Your task to perform on an android device: change notifications settings Image 0: 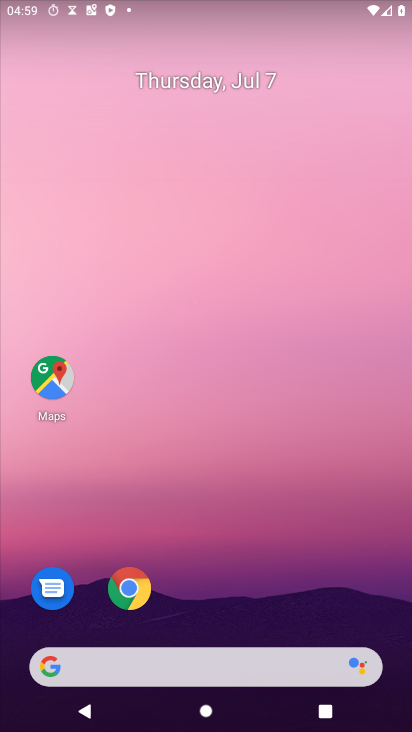
Step 0: press home button
Your task to perform on an android device: change notifications settings Image 1: 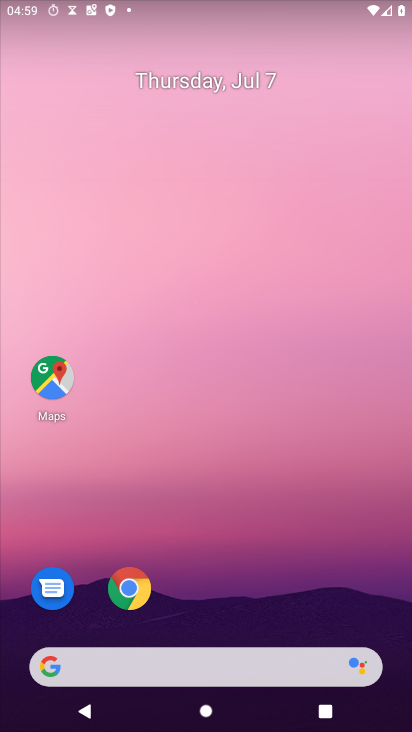
Step 1: drag from (195, 622) to (327, 69)
Your task to perform on an android device: change notifications settings Image 2: 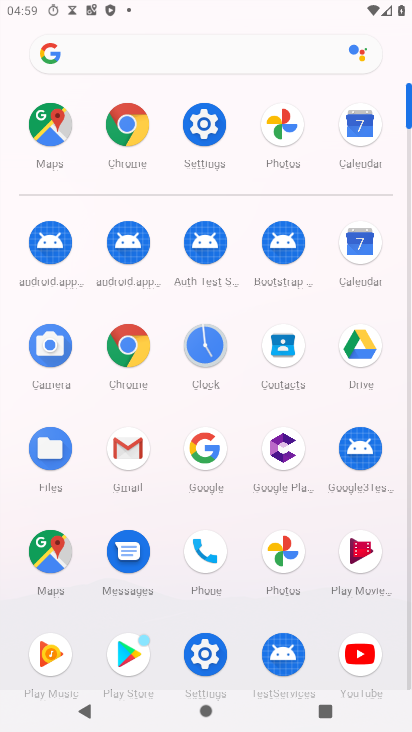
Step 2: click (206, 128)
Your task to perform on an android device: change notifications settings Image 3: 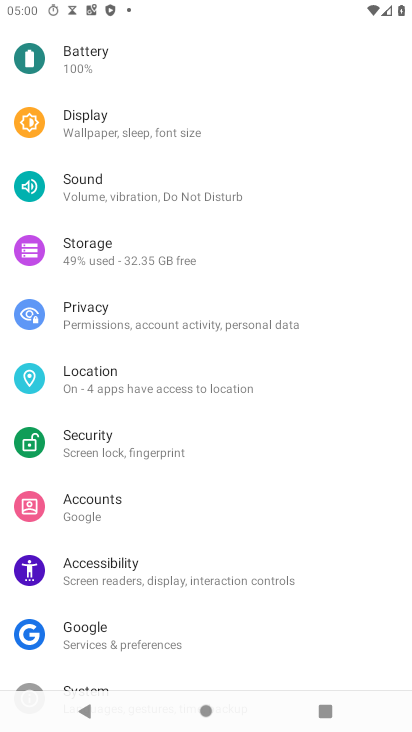
Step 3: drag from (219, 114) to (256, 506)
Your task to perform on an android device: change notifications settings Image 4: 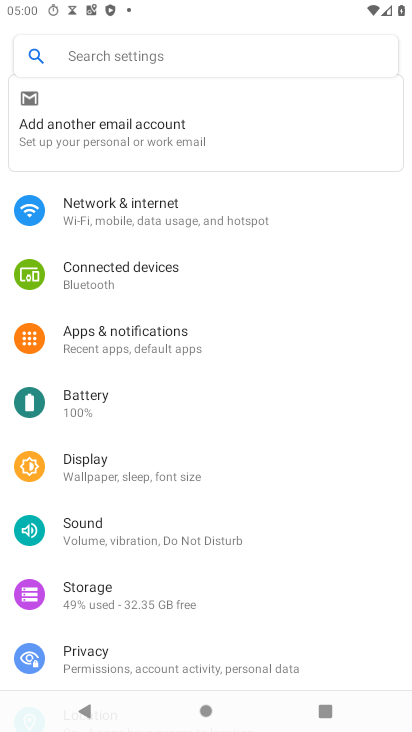
Step 4: click (133, 343)
Your task to perform on an android device: change notifications settings Image 5: 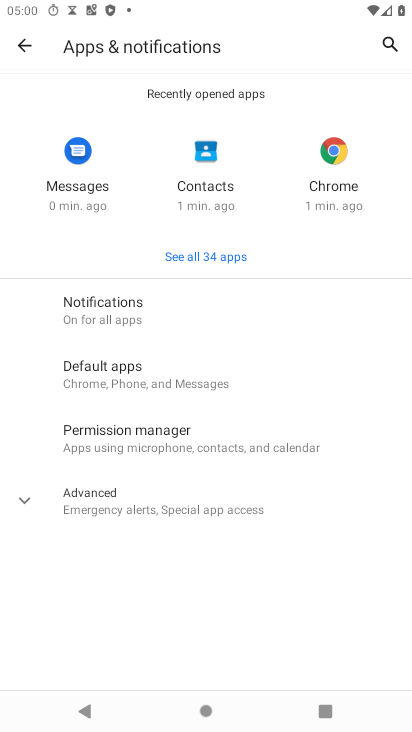
Step 5: click (93, 314)
Your task to perform on an android device: change notifications settings Image 6: 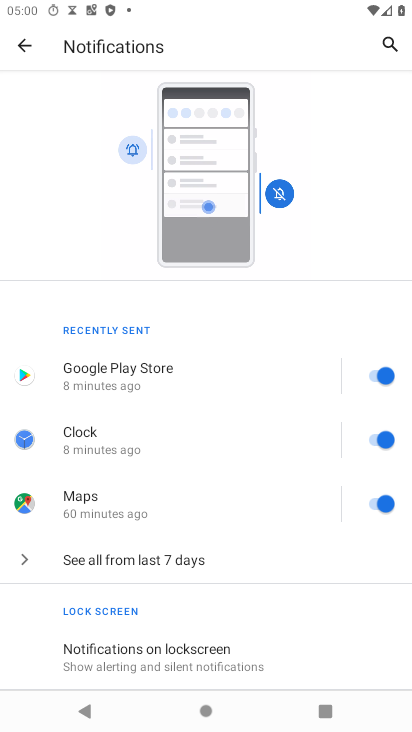
Step 6: drag from (292, 621) to (309, 231)
Your task to perform on an android device: change notifications settings Image 7: 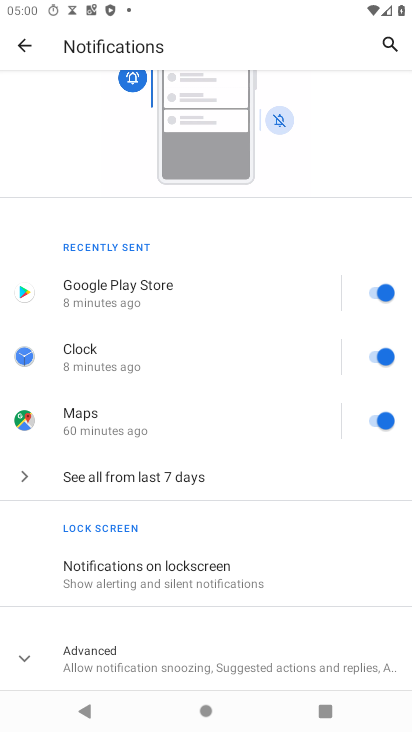
Step 7: click (79, 668)
Your task to perform on an android device: change notifications settings Image 8: 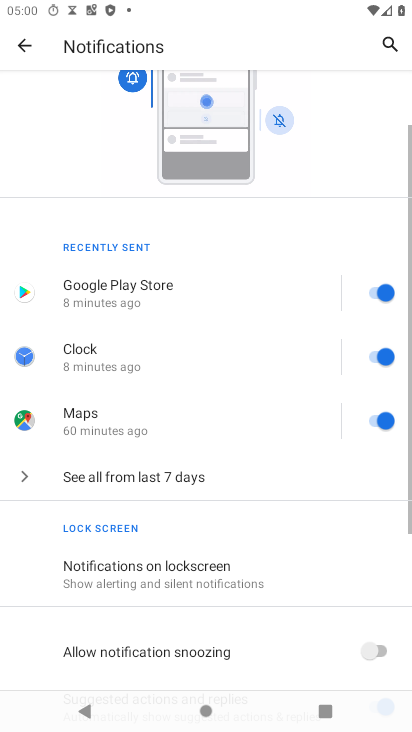
Step 8: drag from (365, 655) to (410, 638)
Your task to perform on an android device: change notifications settings Image 9: 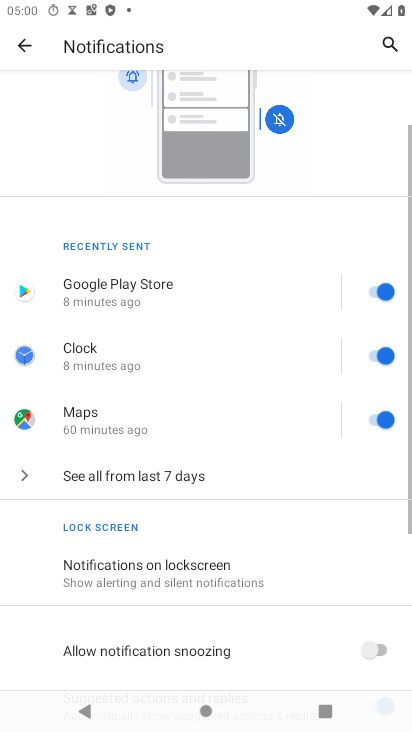
Step 9: click (377, 620)
Your task to perform on an android device: change notifications settings Image 10: 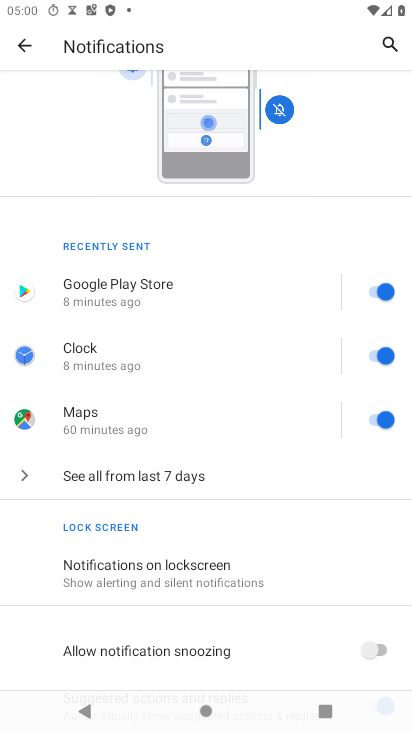
Step 10: click (139, 578)
Your task to perform on an android device: change notifications settings Image 11: 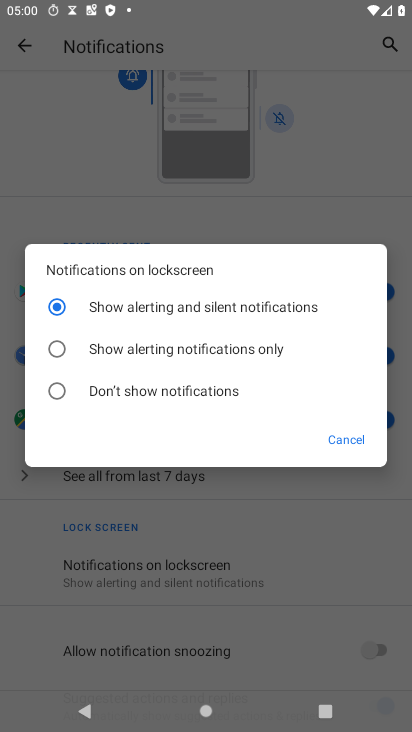
Step 11: click (55, 398)
Your task to perform on an android device: change notifications settings Image 12: 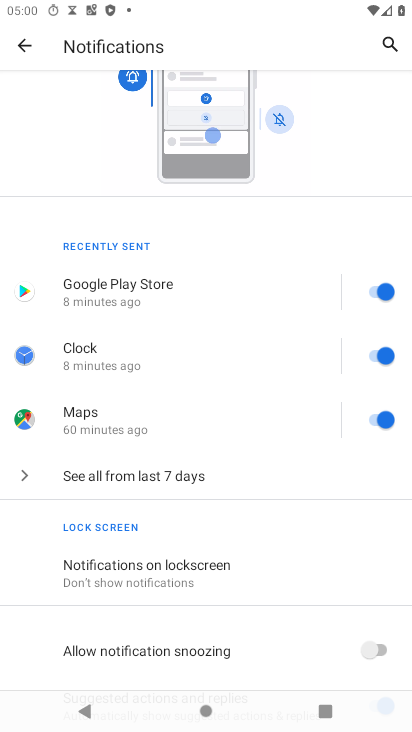
Step 12: task complete